Your task to perform on an android device: change the clock display to show seconds Image 0: 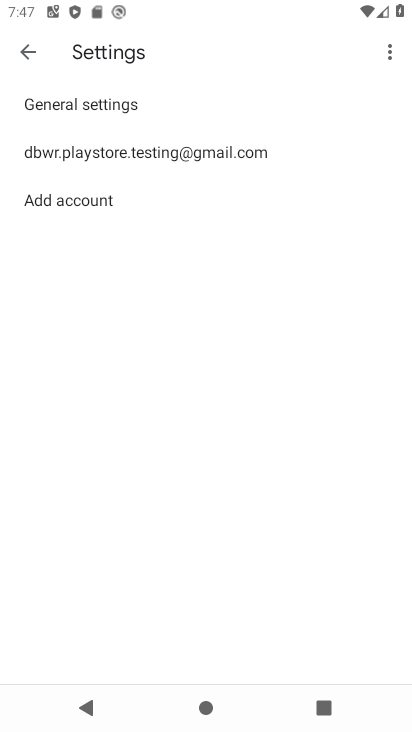
Step 0: press home button
Your task to perform on an android device: change the clock display to show seconds Image 1: 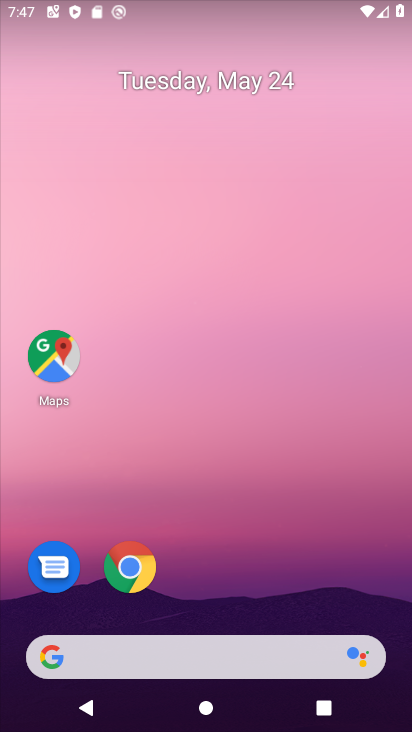
Step 1: drag from (412, 126) to (408, 56)
Your task to perform on an android device: change the clock display to show seconds Image 2: 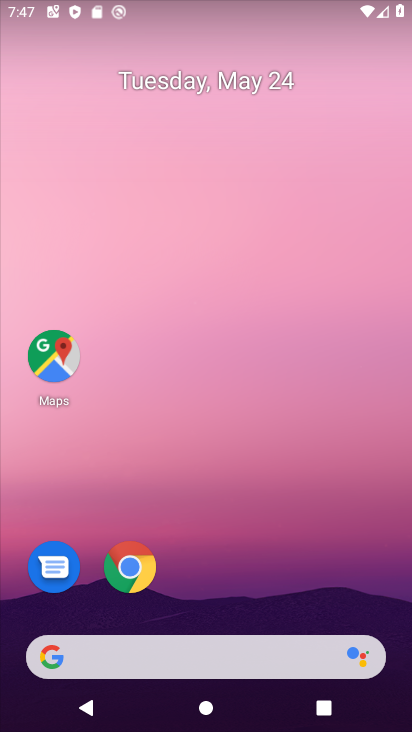
Step 2: drag from (195, 616) to (333, 9)
Your task to perform on an android device: change the clock display to show seconds Image 3: 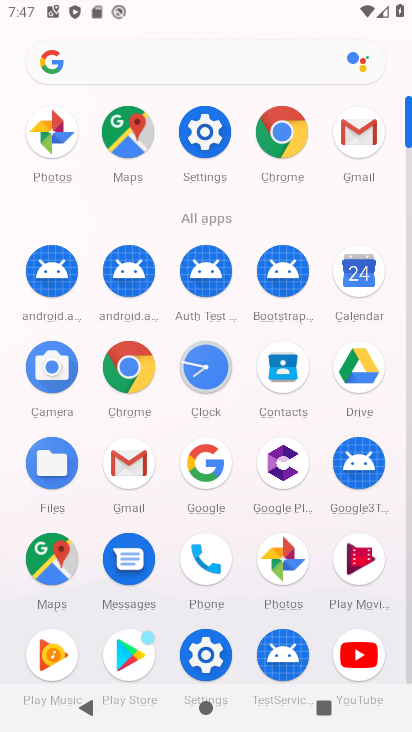
Step 3: click (194, 366)
Your task to perform on an android device: change the clock display to show seconds Image 4: 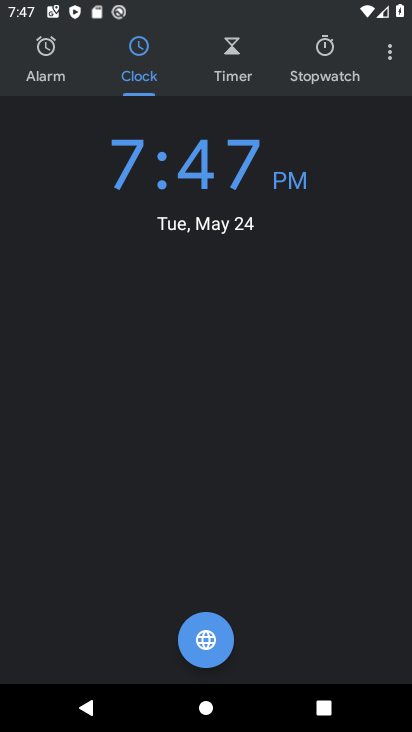
Step 4: click (390, 54)
Your task to perform on an android device: change the clock display to show seconds Image 5: 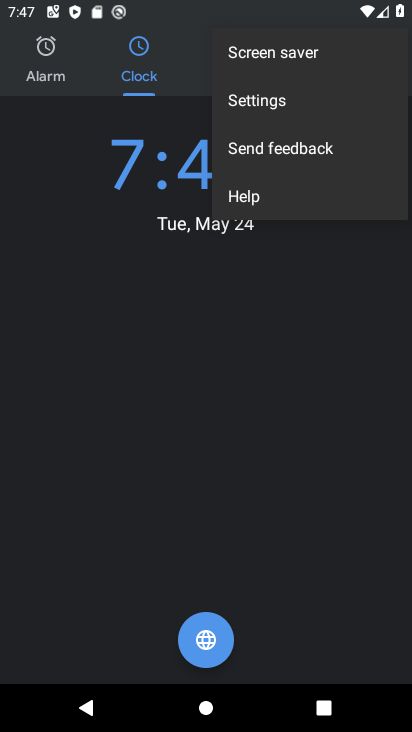
Step 5: click (276, 100)
Your task to perform on an android device: change the clock display to show seconds Image 6: 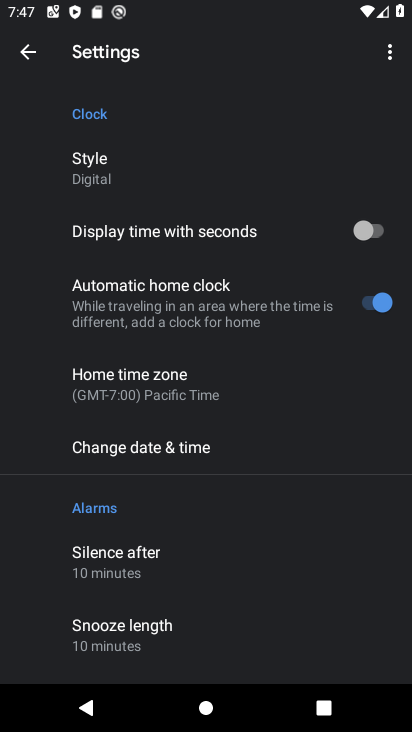
Step 6: click (116, 163)
Your task to perform on an android device: change the clock display to show seconds Image 7: 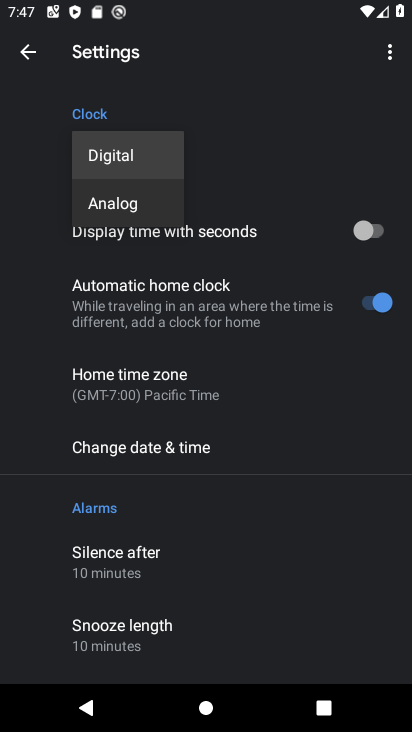
Step 7: click (137, 211)
Your task to perform on an android device: change the clock display to show seconds Image 8: 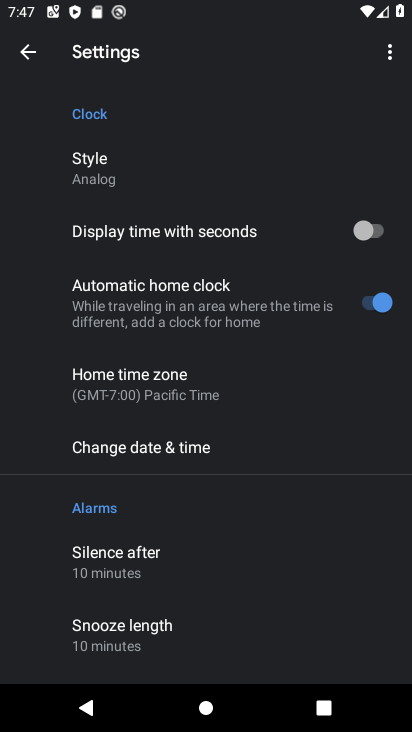
Step 8: task complete